Your task to perform on an android device: Play the last video I watched on Youtube Image 0: 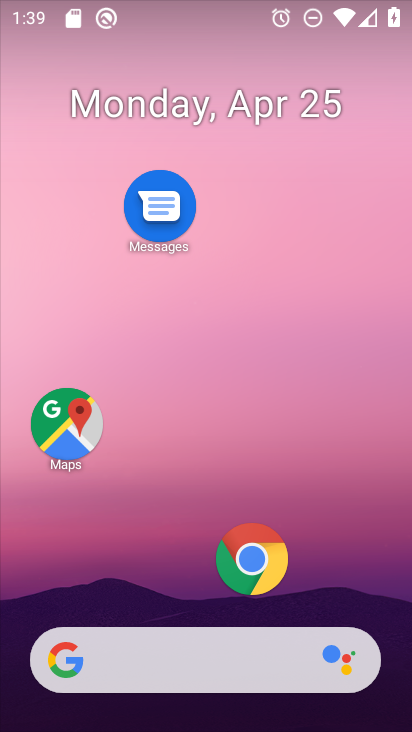
Step 0: drag from (191, 561) to (252, 152)
Your task to perform on an android device: Play the last video I watched on Youtube Image 1: 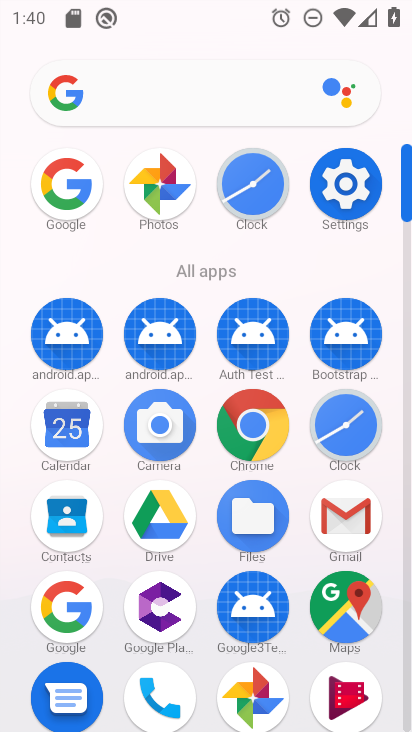
Step 1: drag from (215, 560) to (242, 184)
Your task to perform on an android device: Play the last video I watched on Youtube Image 2: 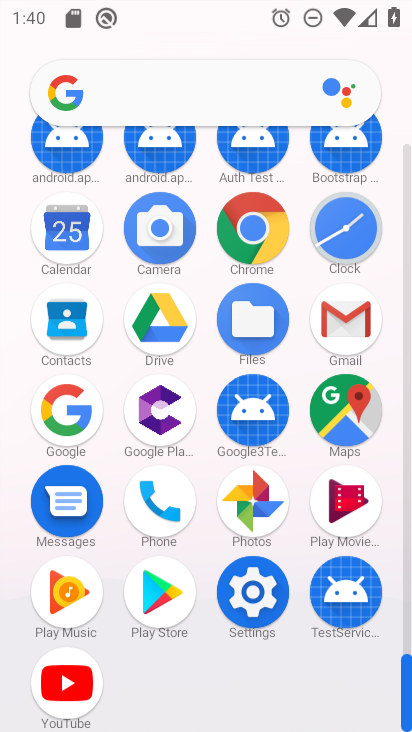
Step 2: click (72, 672)
Your task to perform on an android device: Play the last video I watched on Youtube Image 3: 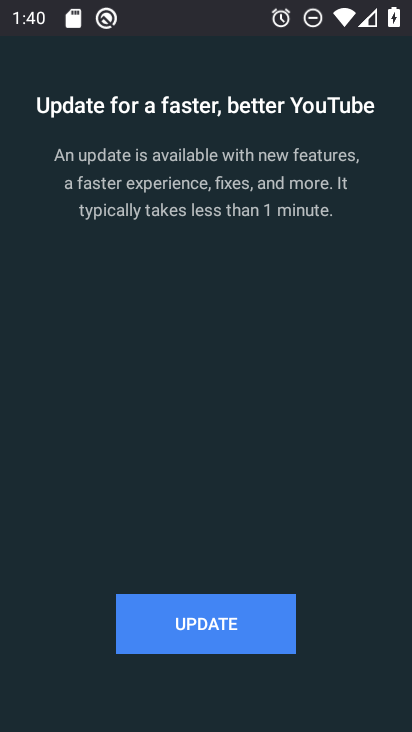
Step 3: click (188, 631)
Your task to perform on an android device: Play the last video I watched on Youtube Image 4: 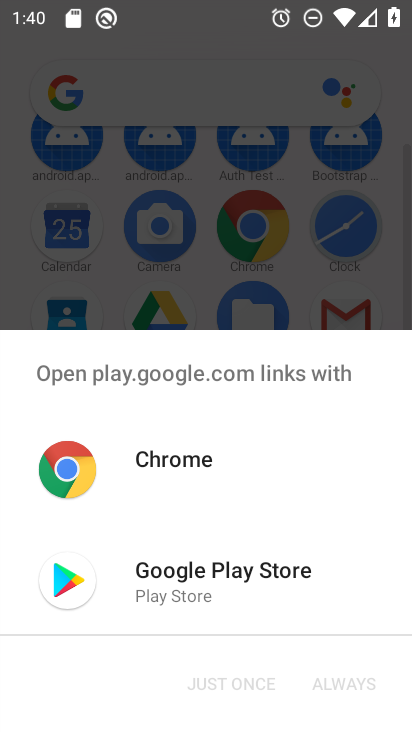
Step 4: click (183, 580)
Your task to perform on an android device: Play the last video I watched on Youtube Image 5: 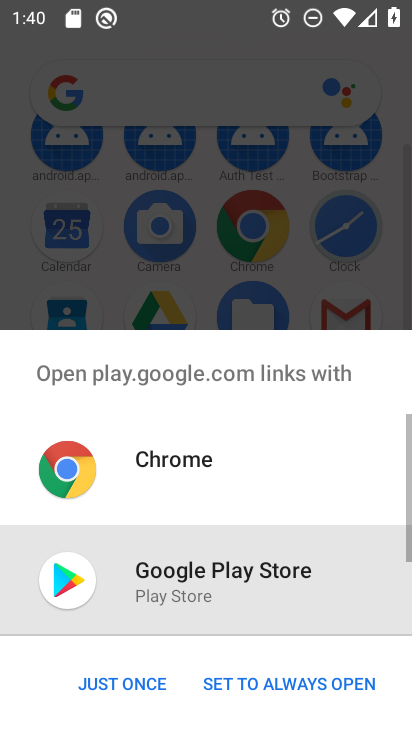
Step 5: click (162, 678)
Your task to perform on an android device: Play the last video I watched on Youtube Image 6: 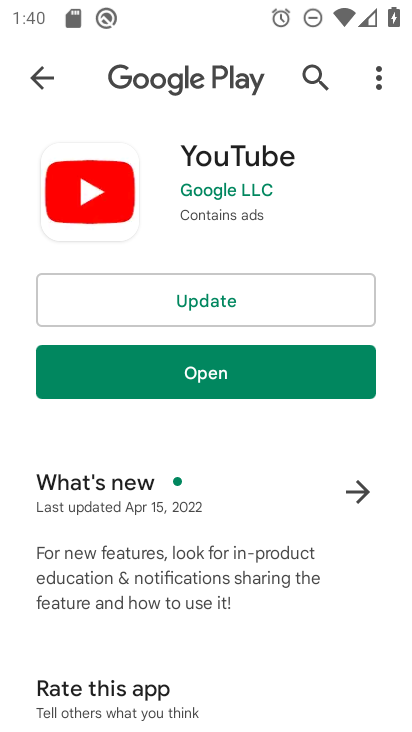
Step 6: click (182, 306)
Your task to perform on an android device: Play the last video I watched on Youtube Image 7: 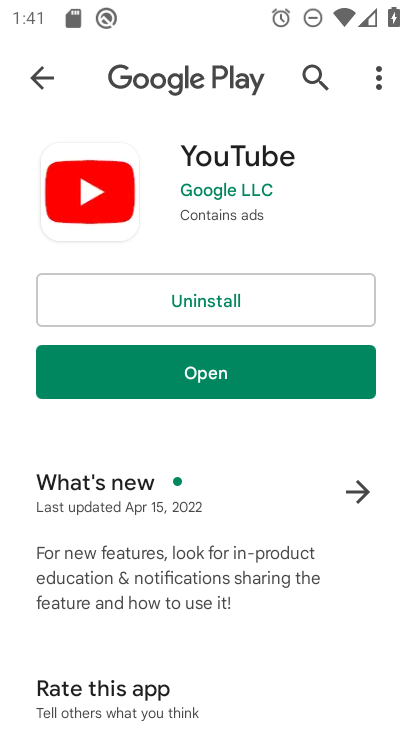
Step 7: click (196, 375)
Your task to perform on an android device: Play the last video I watched on Youtube Image 8: 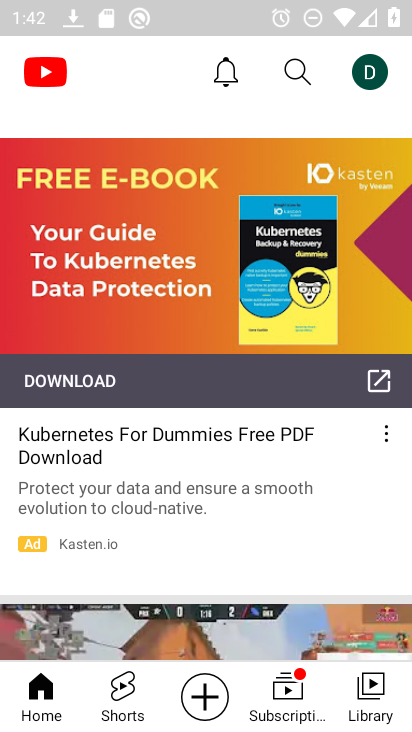
Step 8: click (291, 70)
Your task to perform on an android device: Play the last video I watched on Youtube Image 9: 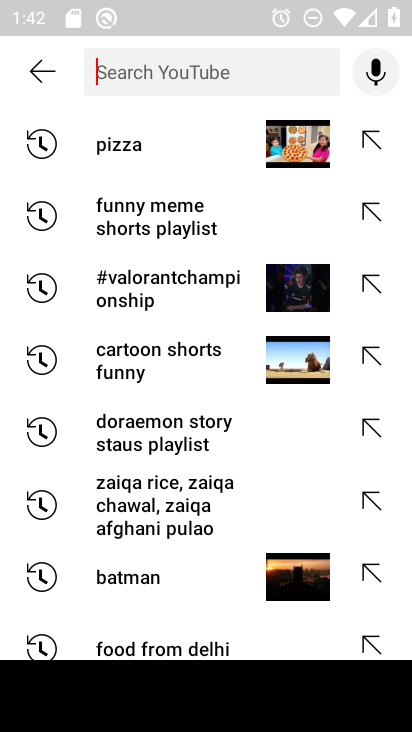
Step 9: task complete